Your task to perform on an android device: What's the weather like in Delhi? Image 0: 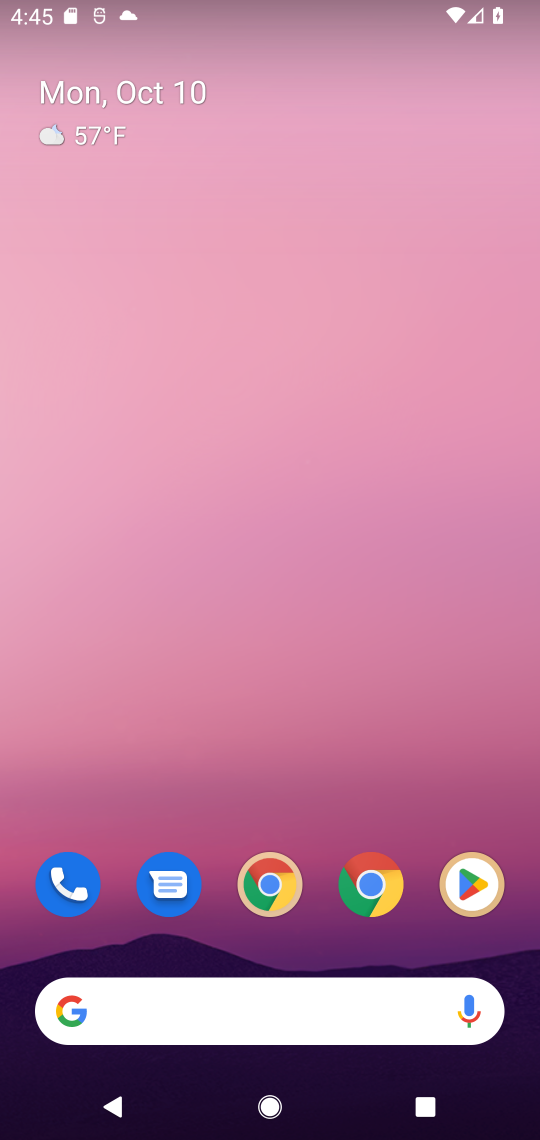
Step 0: drag from (251, 1137) to (472, 1092)
Your task to perform on an android device: What's the weather like in Delhi? Image 1: 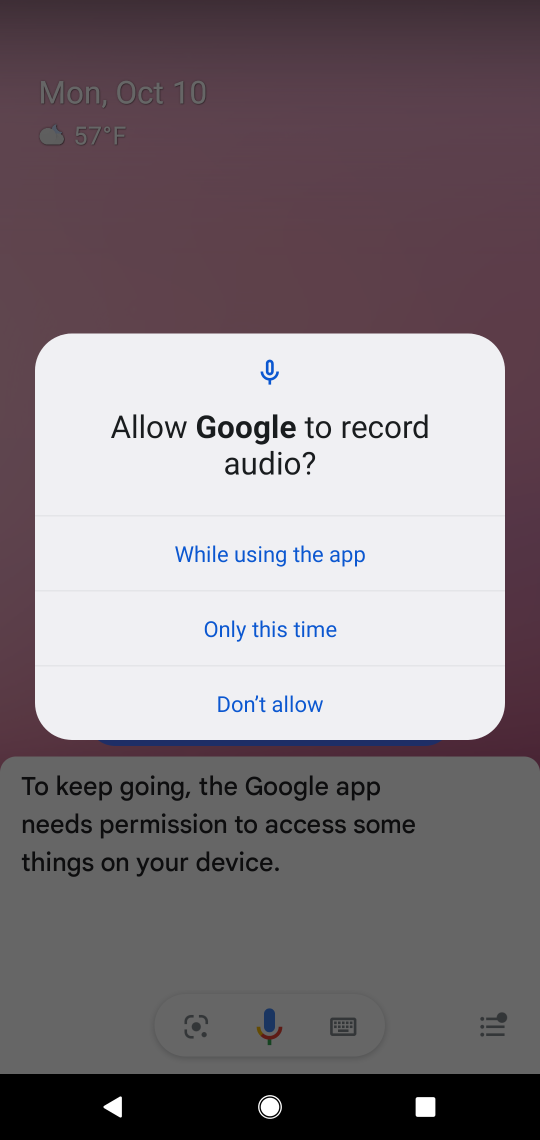
Step 1: click (338, 238)
Your task to perform on an android device: What's the weather like in Delhi? Image 2: 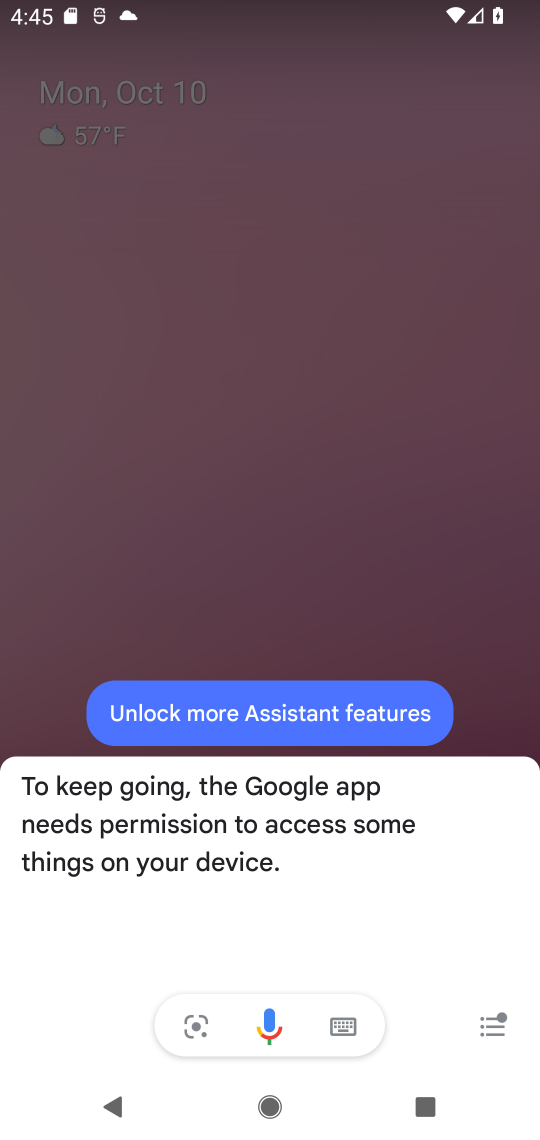
Step 2: press home button
Your task to perform on an android device: What's the weather like in Delhi? Image 3: 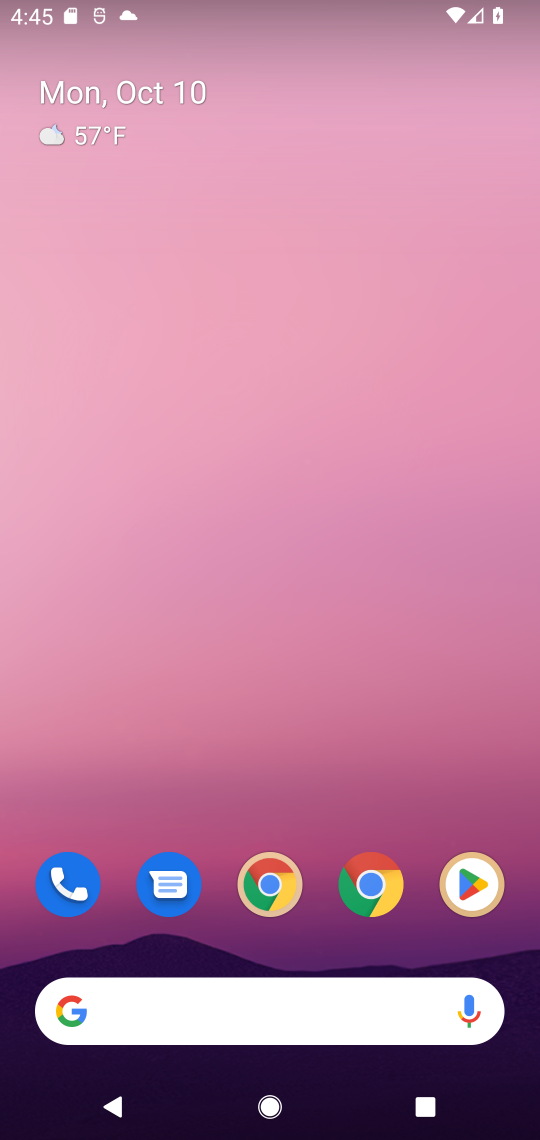
Step 3: click (286, 993)
Your task to perform on an android device: What's the weather like in Delhi? Image 4: 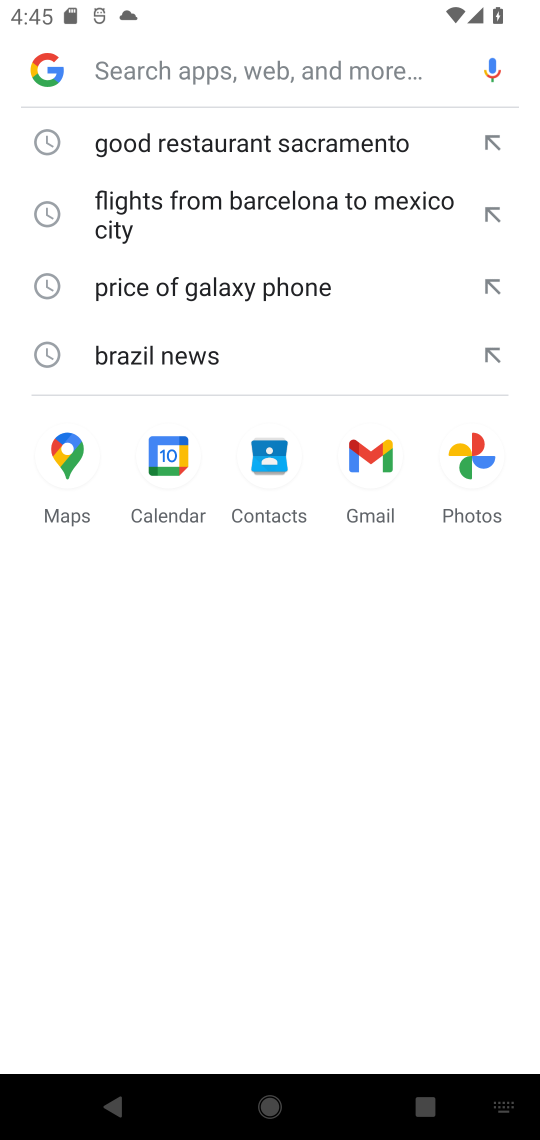
Step 4: type "What's the weather like in Delhi?"
Your task to perform on an android device: What's the weather like in Delhi? Image 5: 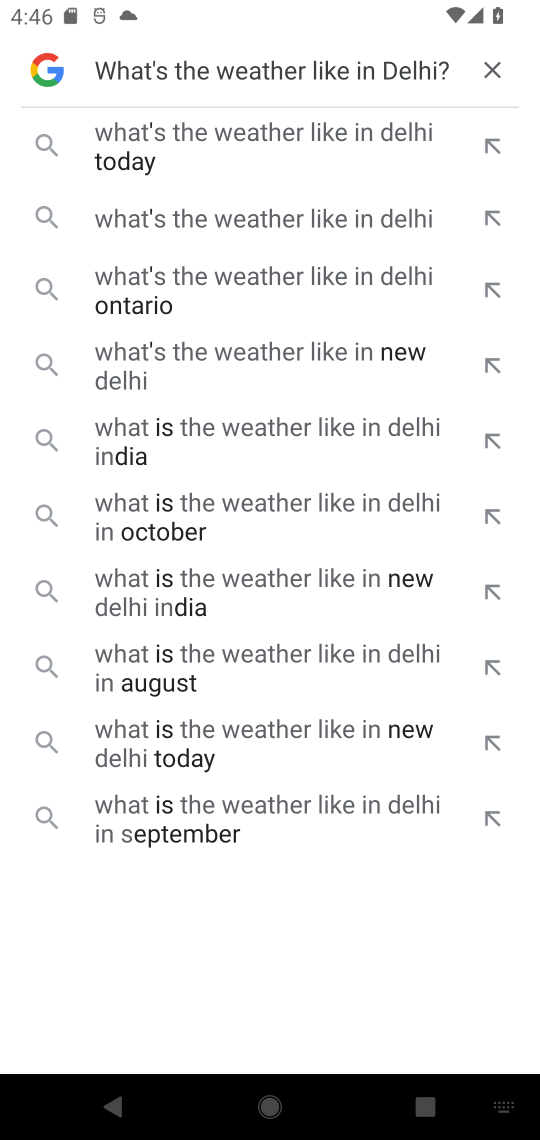
Step 5: click (280, 155)
Your task to perform on an android device: What's the weather like in Delhi? Image 6: 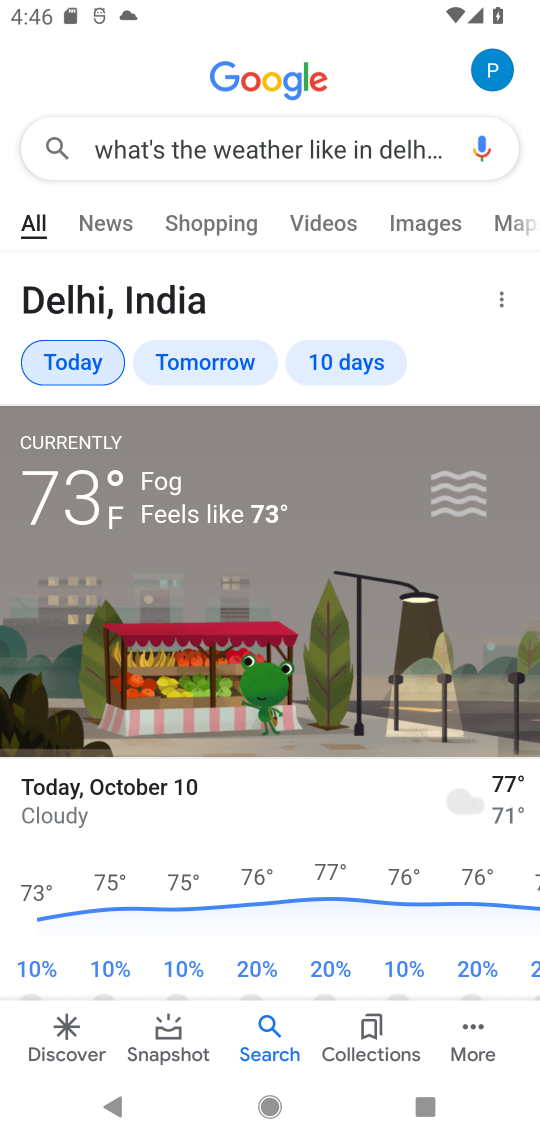
Step 6: task complete